Your task to perform on an android device: turn pop-ups on in chrome Image 0: 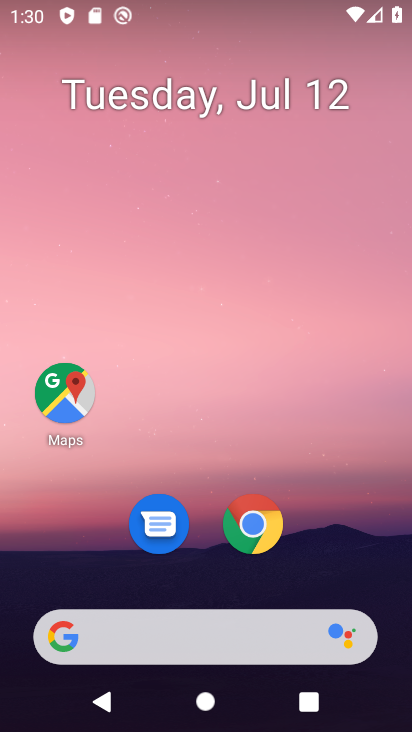
Step 0: click (249, 525)
Your task to perform on an android device: turn pop-ups on in chrome Image 1: 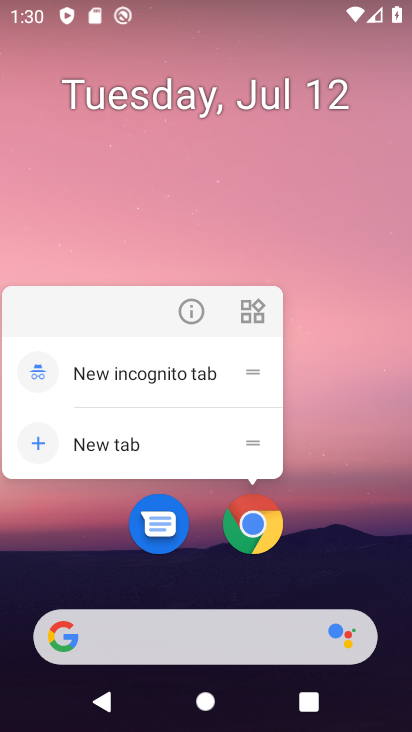
Step 1: click (249, 525)
Your task to perform on an android device: turn pop-ups on in chrome Image 2: 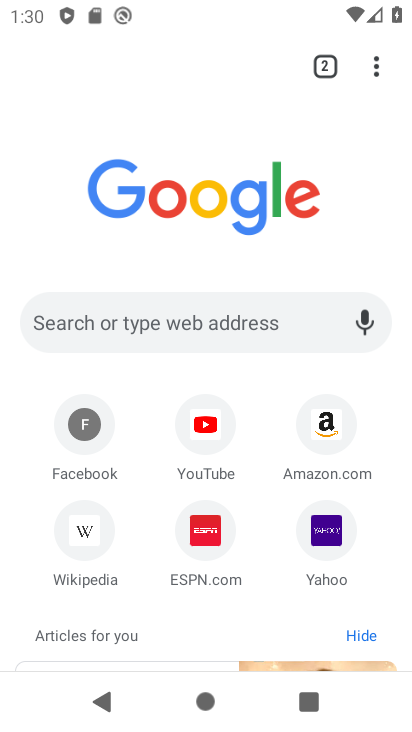
Step 2: click (372, 67)
Your task to perform on an android device: turn pop-ups on in chrome Image 3: 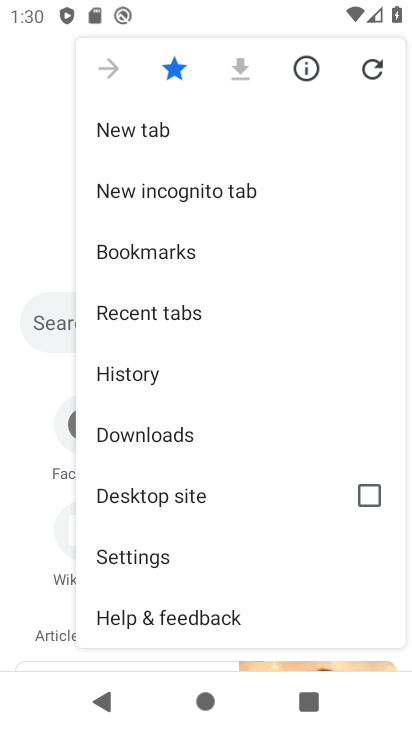
Step 3: click (154, 556)
Your task to perform on an android device: turn pop-ups on in chrome Image 4: 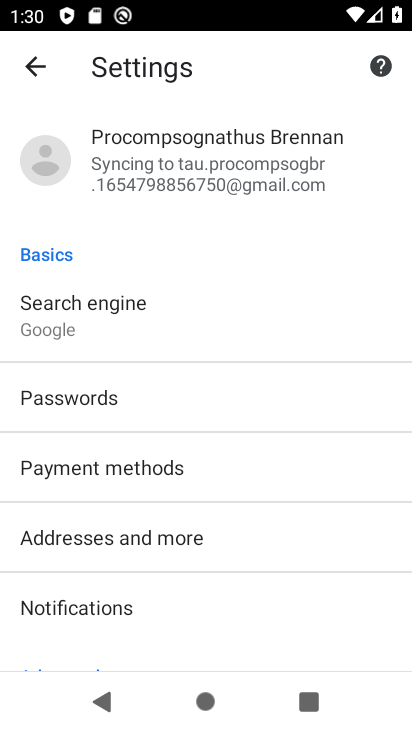
Step 4: drag from (264, 591) to (280, 208)
Your task to perform on an android device: turn pop-ups on in chrome Image 5: 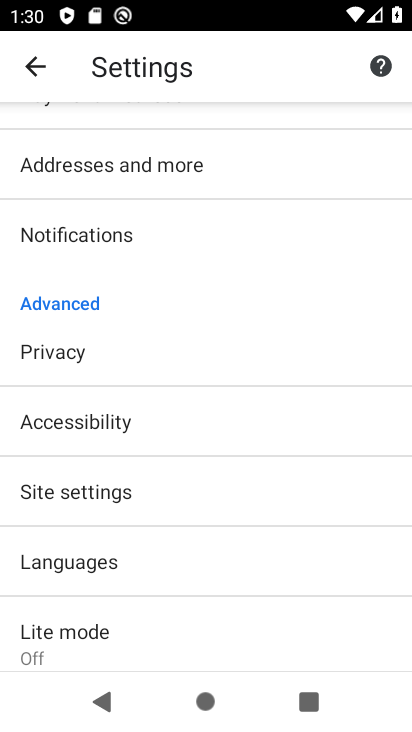
Step 5: click (103, 489)
Your task to perform on an android device: turn pop-ups on in chrome Image 6: 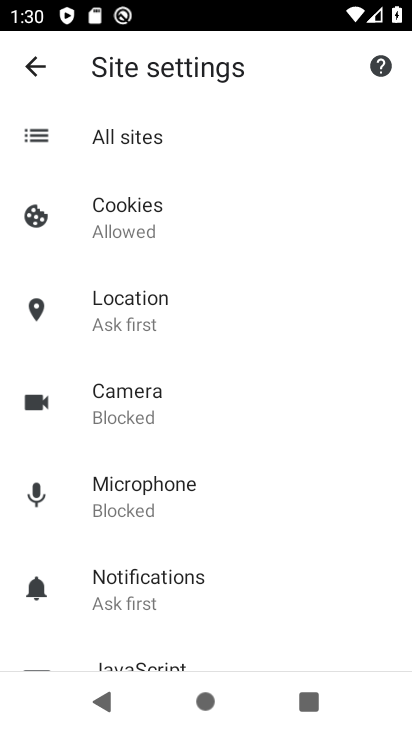
Step 6: drag from (232, 596) to (255, 267)
Your task to perform on an android device: turn pop-ups on in chrome Image 7: 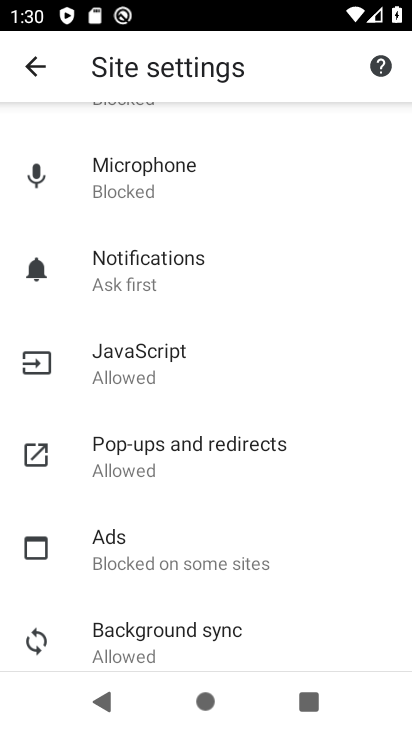
Step 7: click (169, 466)
Your task to perform on an android device: turn pop-ups on in chrome Image 8: 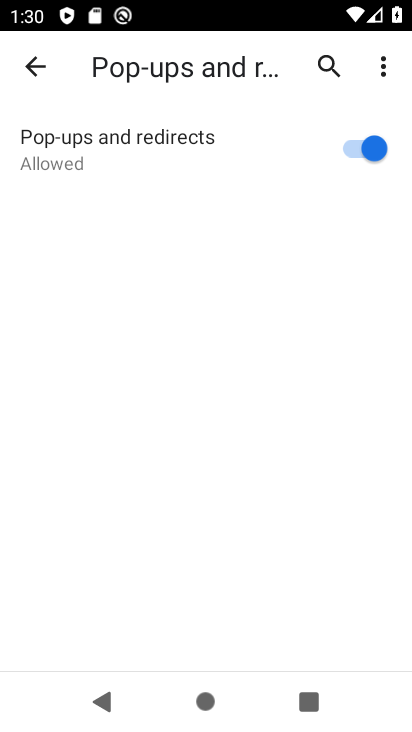
Step 8: task complete